Your task to perform on an android device: change the clock display to digital Image 0: 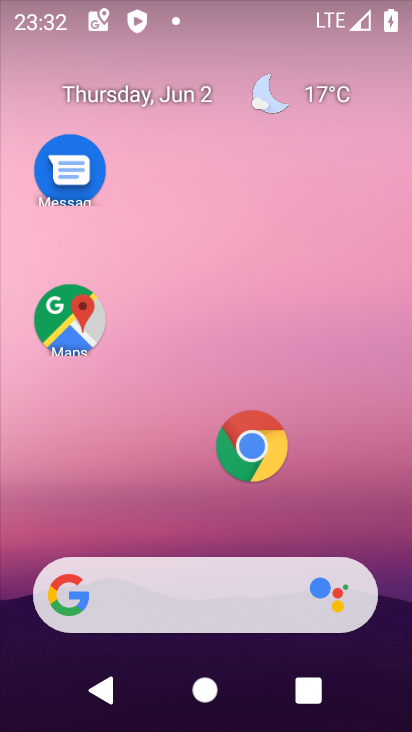
Step 0: press home button
Your task to perform on an android device: change the clock display to digital Image 1: 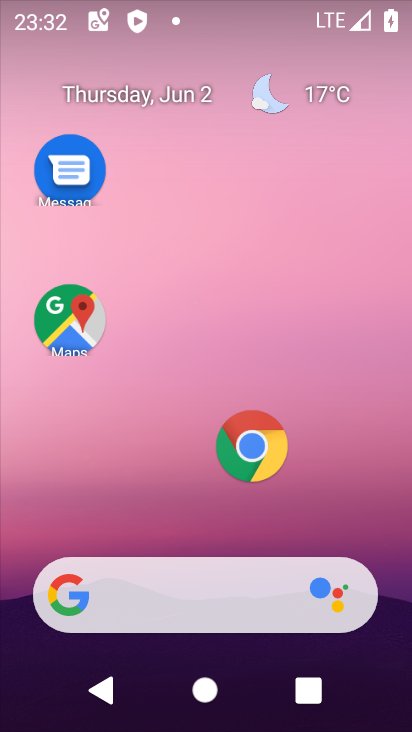
Step 1: drag from (285, 503) to (269, 97)
Your task to perform on an android device: change the clock display to digital Image 2: 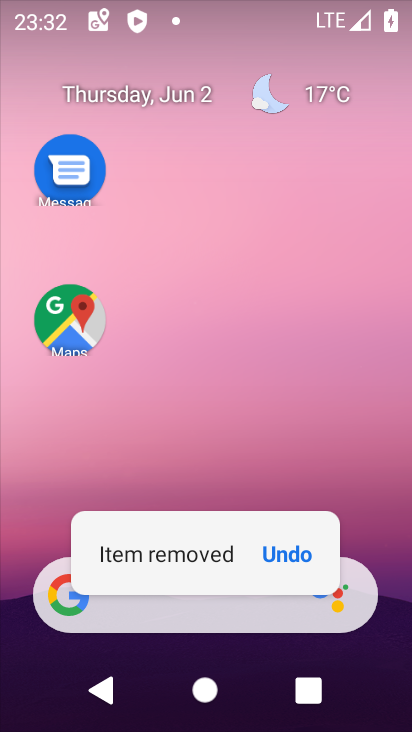
Step 2: drag from (208, 487) to (219, 69)
Your task to perform on an android device: change the clock display to digital Image 3: 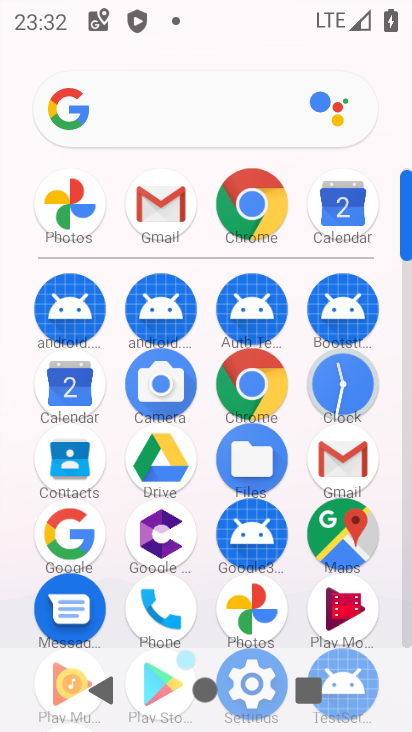
Step 3: click (320, 387)
Your task to perform on an android device: change the clock display to digital Image 4: 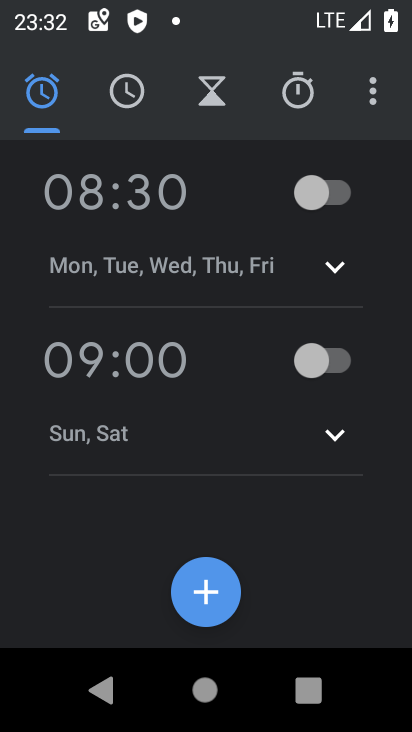
Step 4: click (363, 83)
Your task to perform on an android device: change the clock display to digital Image 5: 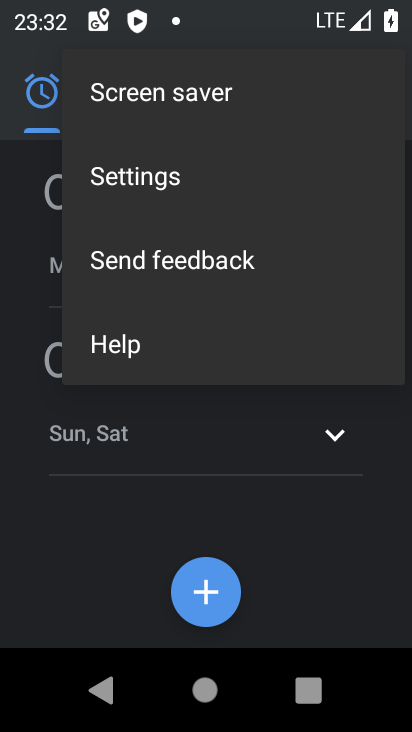
Step 5: click (123, 196)
Your task to perform on an android device: change the clock display to digital Image 6: 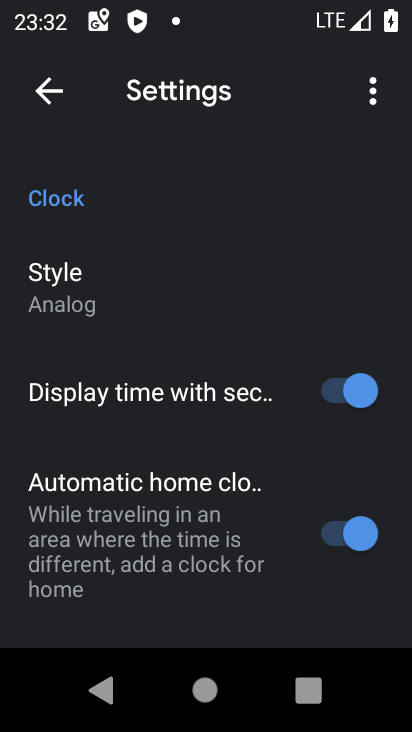
Step 6: click (51, 307)
Your task to perform on an android device: change the clock display to digital Image 7: 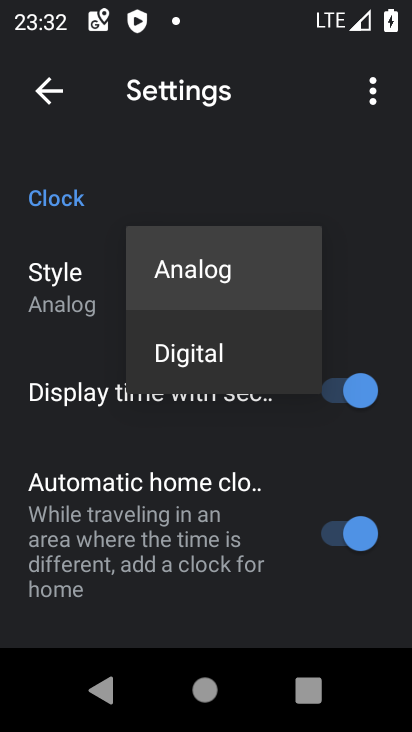
Step 7: click (194, 343)
Your task to perform on an android device: change the clock display to digital Image 8: 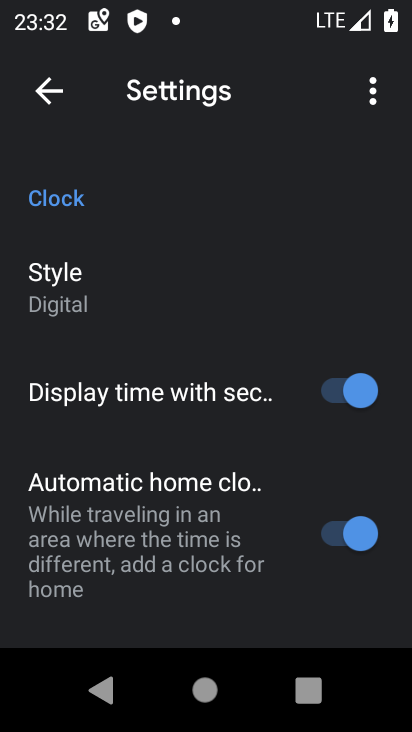
Step 8: task complete